Your task to perform on an android device: visit the assistant section in the google photos Image 0: 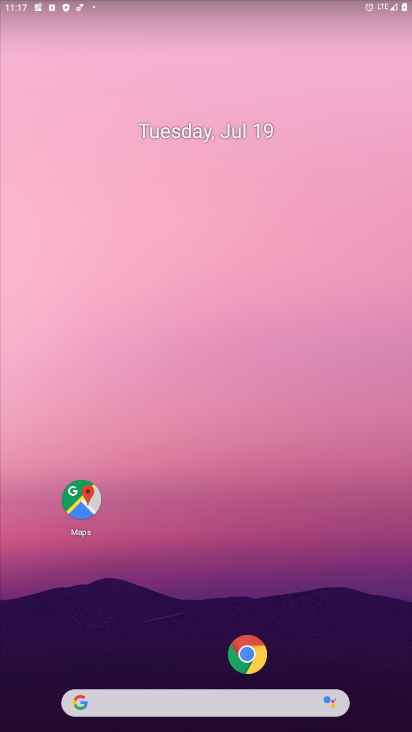
Step 0: drag from (162, 662) to (160, 214)
Your task to perform on an android device: visit the assistant section in the google photos Image 1: 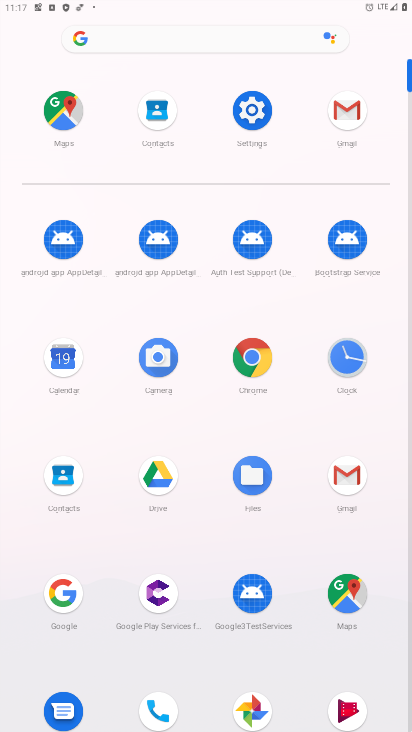
Step 1: click (237, 708)
Your task to perform on an android device: visit the assistant section in the google photos Image 2: 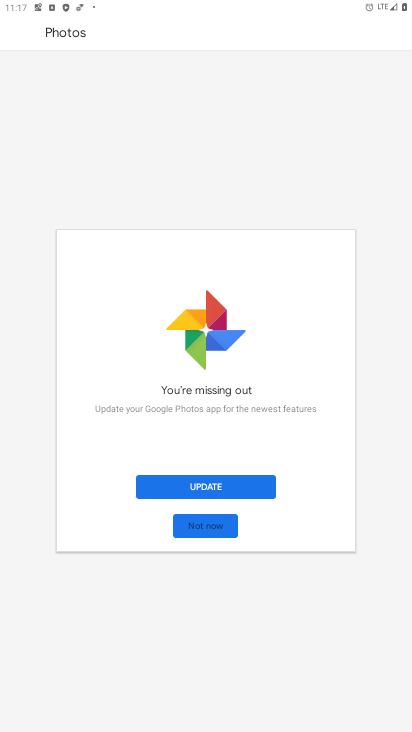
Step 2: click (218, 518)
Your task to perform on an android device: visit the assistant section in the google photos Image 3: 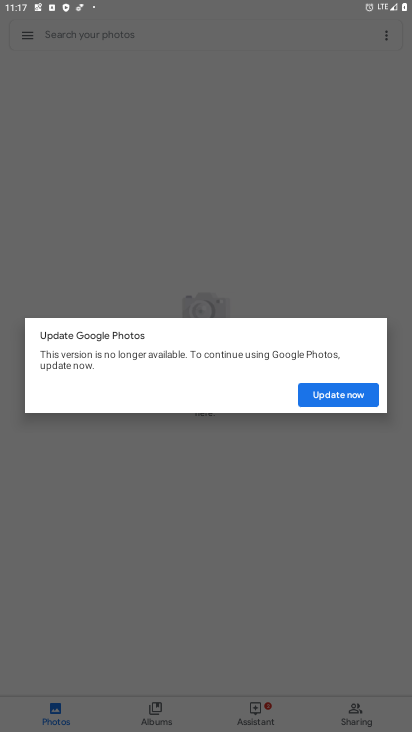
Step 3: click (332, 387)
Your task to perform on an android device: visit the assistant section in the google photos Image 4: 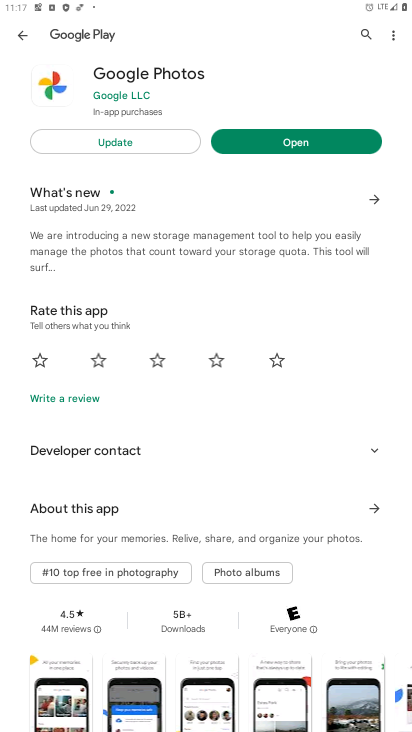
Step 4: click (320, 147)
Your task to perform on an android device: visit the assistant section in the google photos Image 5: 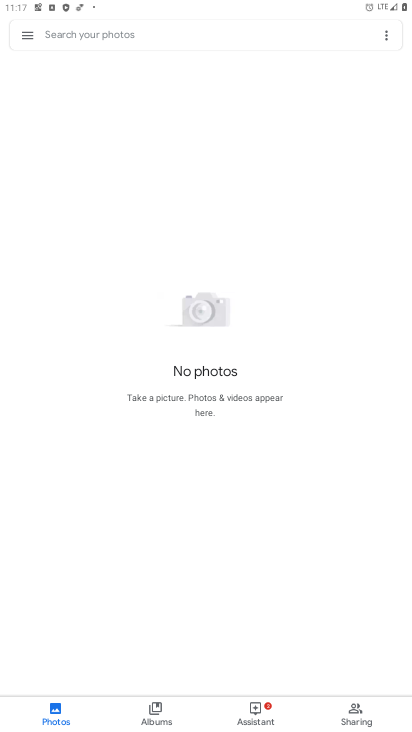
Step 5: click (269, 724)
Your task to perform on an android device: visit the assistant section in the google photos Image 6: 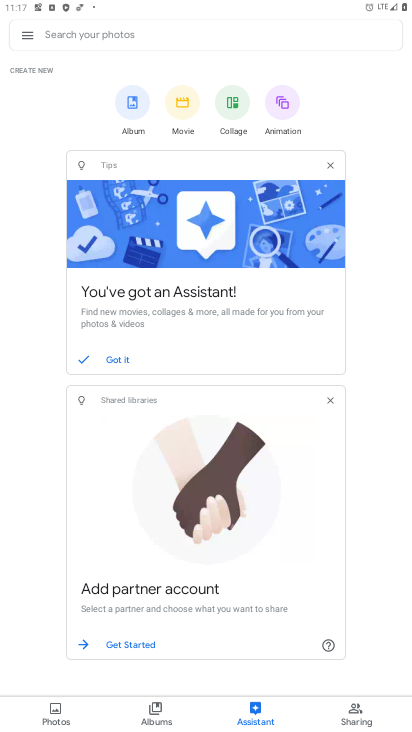
Step 6: task complete